Your task to perform on an android device: check google app version Image 0: 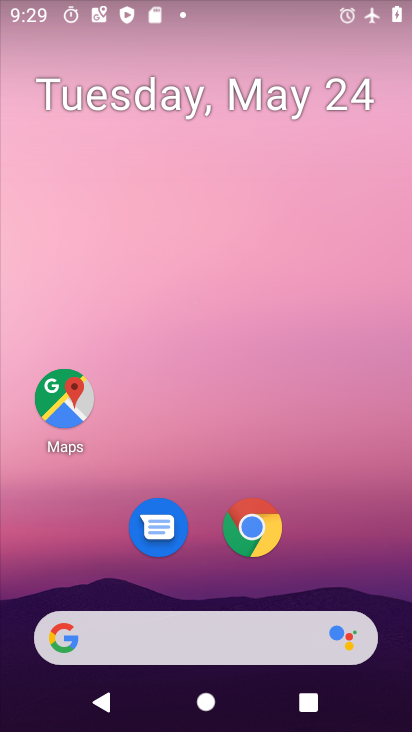
Step 0: drag from (392, 652) to (363, 297)
Your task to perform on an android device: check google app version Image 1: 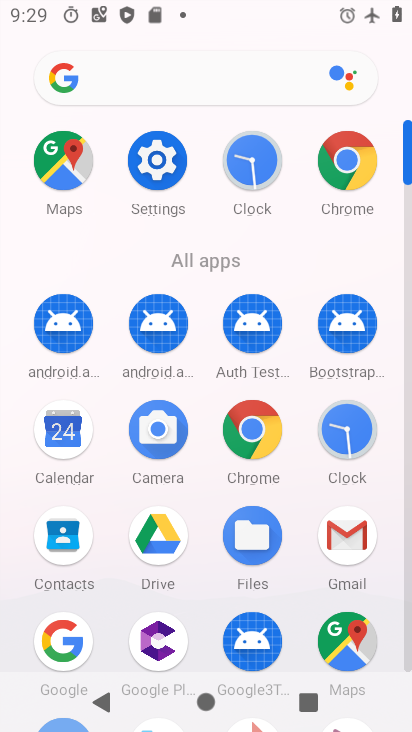
Step 1: click (162, 161)
Your task to perform on an android device: check google app version Image 2: 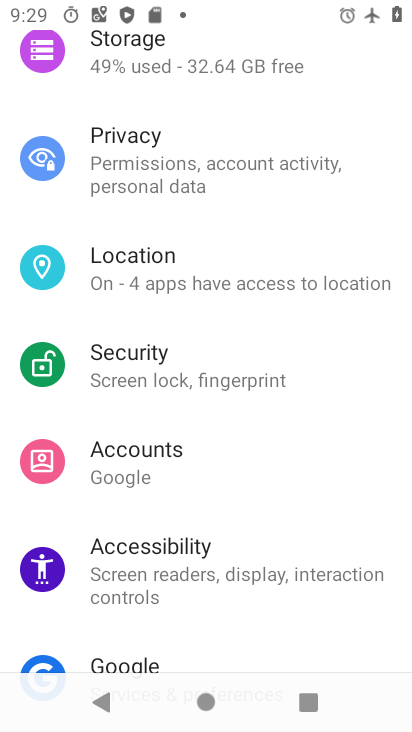
Step 2: drag from (291, 112) to (271, 473)
Your task to perform on an android device: check google app version Image 3: 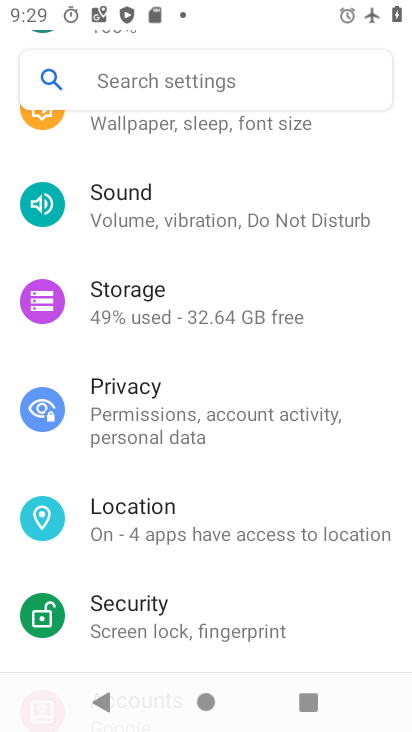
Step 3: drag from (353, 154) to (317, 467)
Your task to perform on an android device: check google app version Image 4: 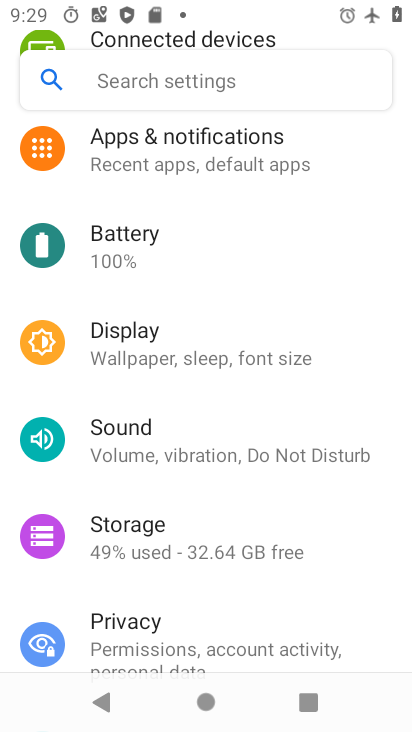
Step 4: drag from (355, 173) to (304, 599)
Your task to perform on an android device: check google app version Image 5: 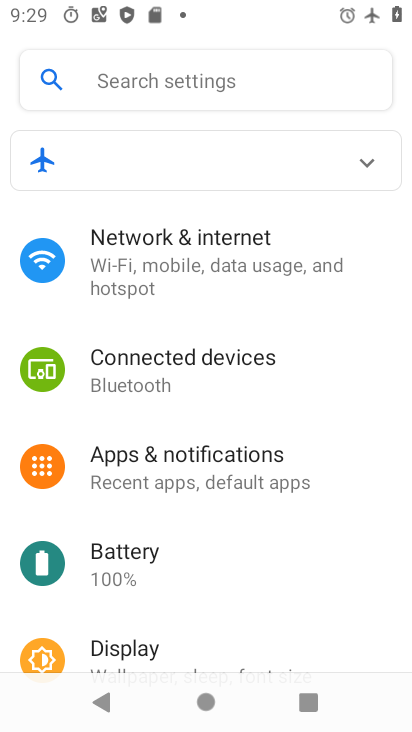
Step 5: click (182, 229)
Your task to perform on an android device: check google app version Image 6: 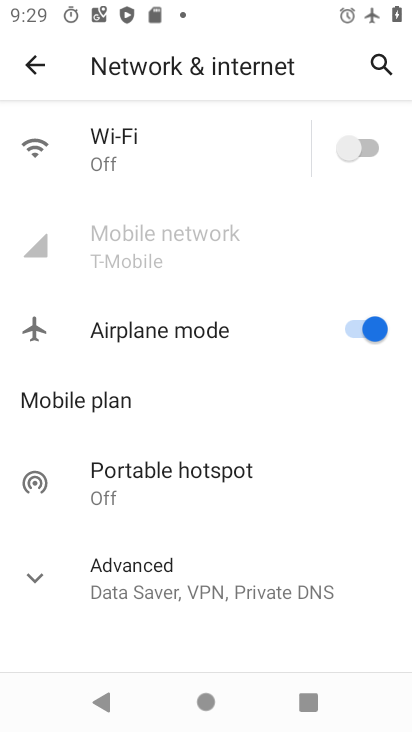
Step 6: click (376, 143)
Your task to perform on an android device: check google app version Image 7: 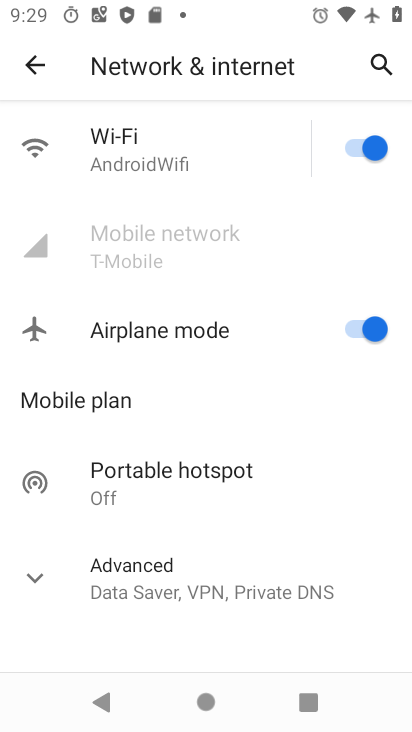
Step 7: click (347, 335)
Your task to perform on an android device: check google app version Image 8: 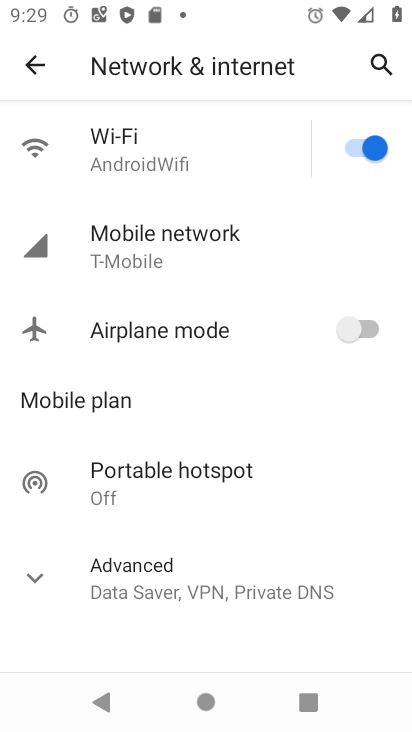
Step 8: click (43, 64)
Your task to perform on an android device: check google app version Image 9: 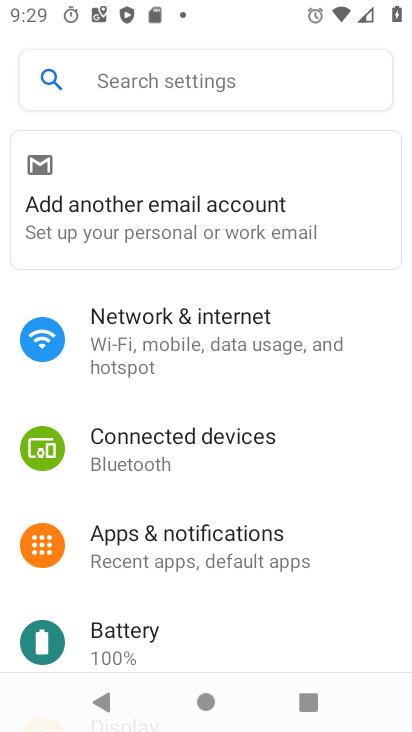
Step 9: press back button
Your task to perform on an android device: check google app version Image 10: 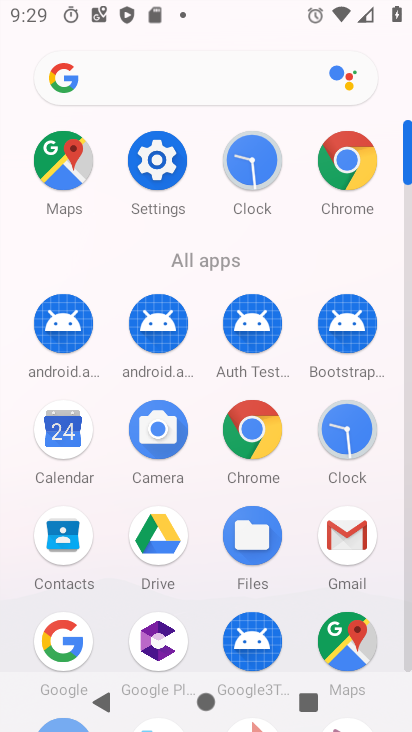
Step 10: click (63, 638)
Your task to perform on an android device: check google app version Image 11: 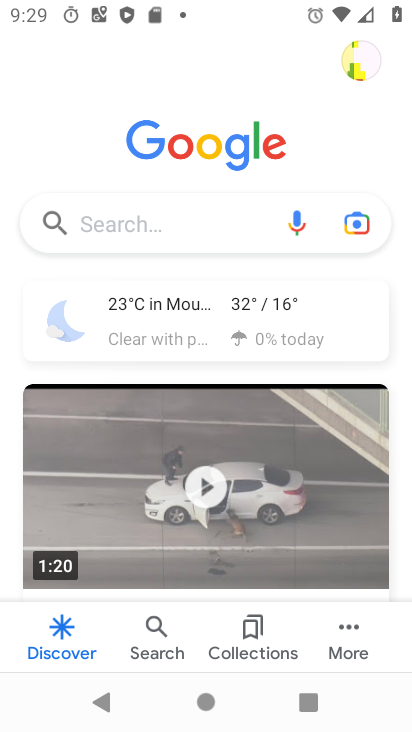
Step 11: click (344, 637)
Your task to perform on an android device: check google app version Image 12: 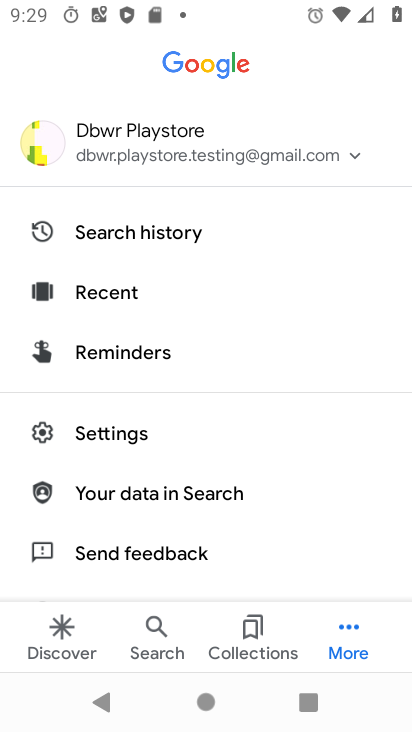
Step 12: click (111, 433)
Your task to perform on an android device: check google app version Image 13: 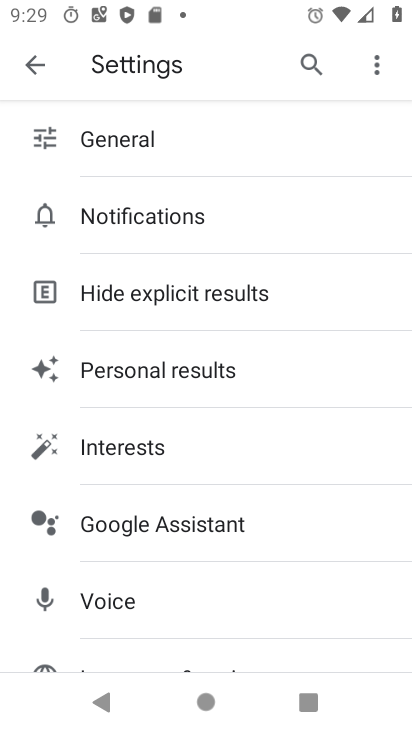
Step 13: drag from (223, 617) to (256, 372)
Your task to perform on an android device: check google app version Image 14: 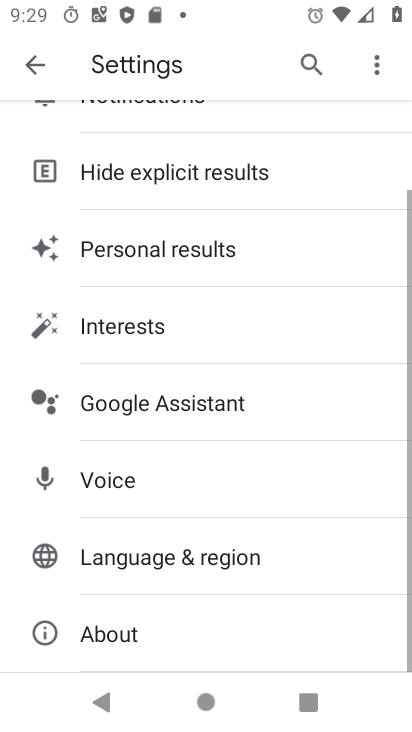
Step 14: drag from (319, 482) to (317, 353)
Your task to perform on an android device: check google app version Image 15: 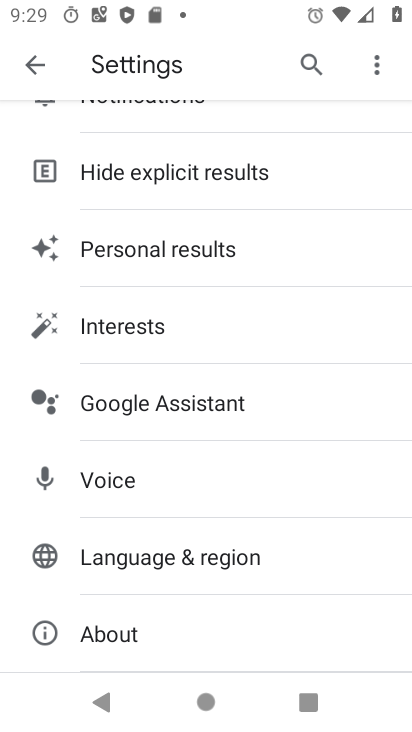
Step 15: click (91, 624)
Your task to perform on an android device: check google app version Image 16: 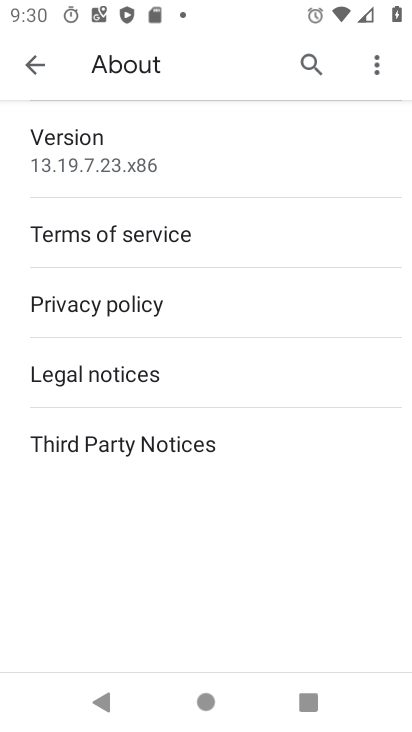
Step 16: click (97, 162)
Your task to perform on an android device: check google app version Image 17: 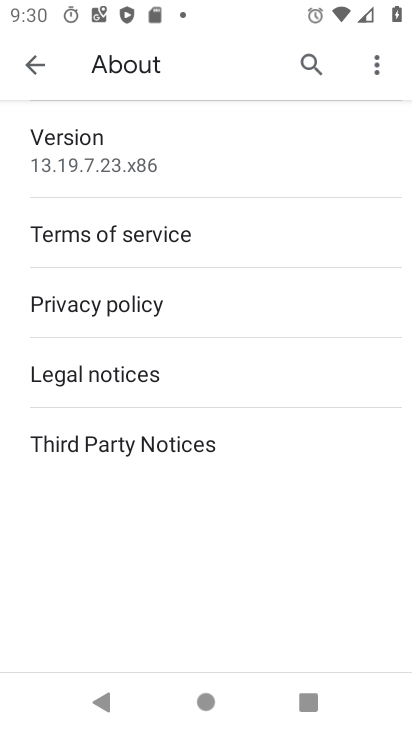
Step 17: task complete